Your task to perform on an android device: see tabs open on other devices in the chrome app Image 0: 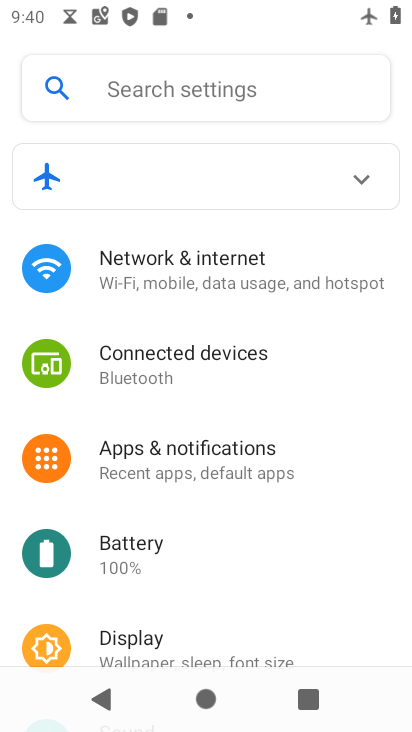
Step 0: press home button
Your task to perform on an android device: see tabs open on other devices in the chrome app Image 1: 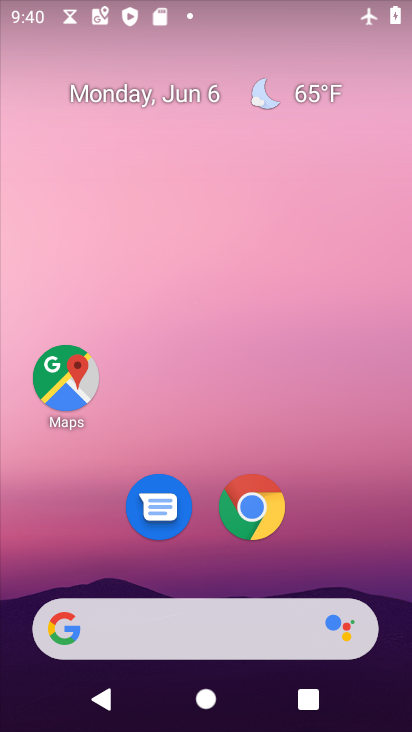
Step 1: click (251, 501)
Your task to perform on an android device: see tabs open on other devices in the chrome app Image 2: 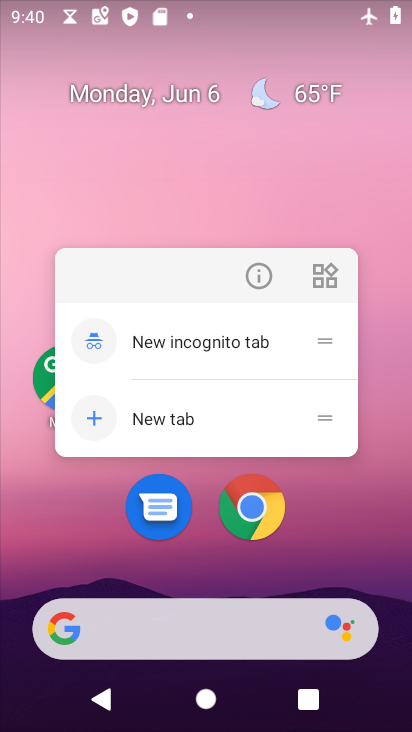
Step 2: click (251, 501)
Your task to perform on an android device: see tabs open on other devices in the chrome app Image 3: 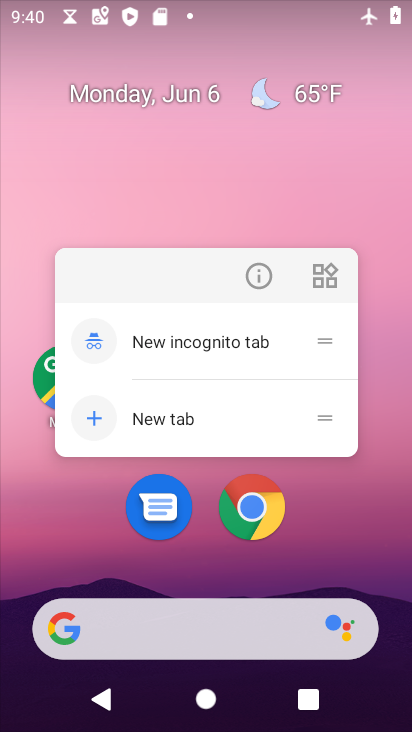
Step 3: click (251, 501)
Your task to perform on an android device: see tabs open on other devices in the chrome app Image 4: 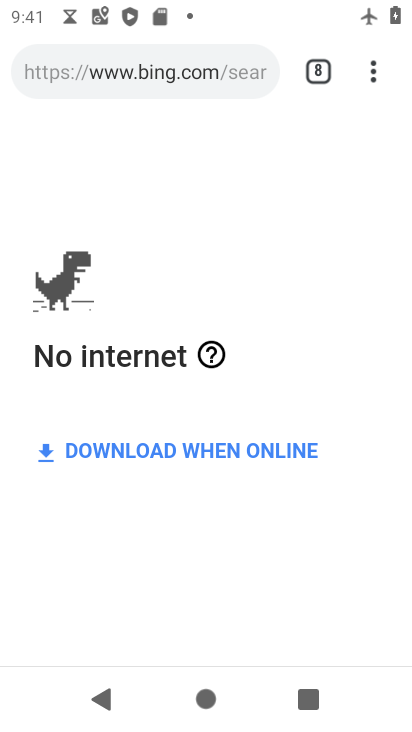
Step 4: click (383, 67)
Your task to perform on an android device: see tabs open on other devices in the chrome app Image 5: 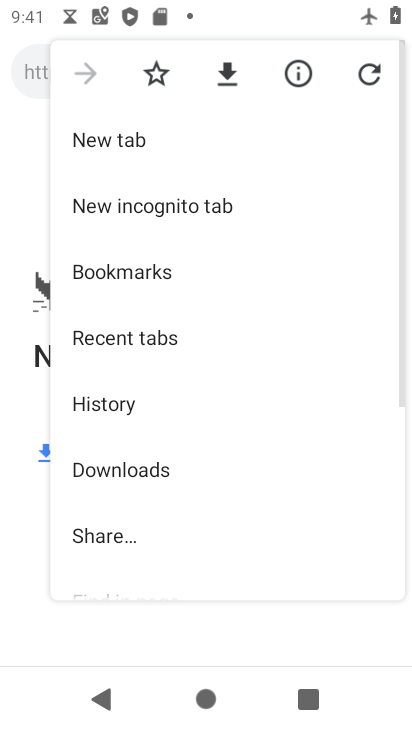
Step 5: click (140, 397)
Your task to perform on an android device: see tabs open on other devices in the chrome app Image 6: 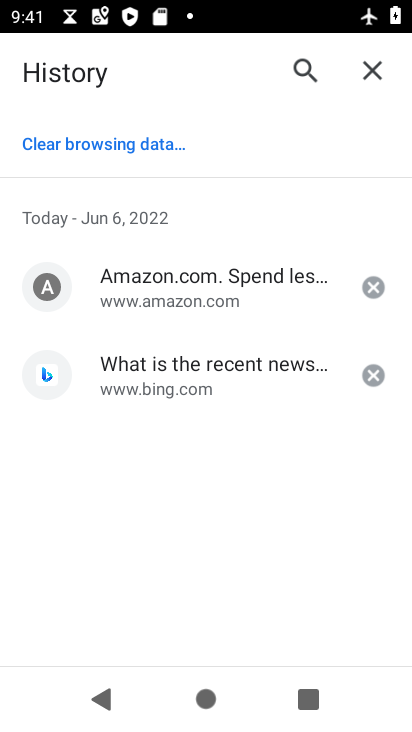
Step 6: task complete